Your task to perform on an android device: turn pop-ups on in chrome Image 0: 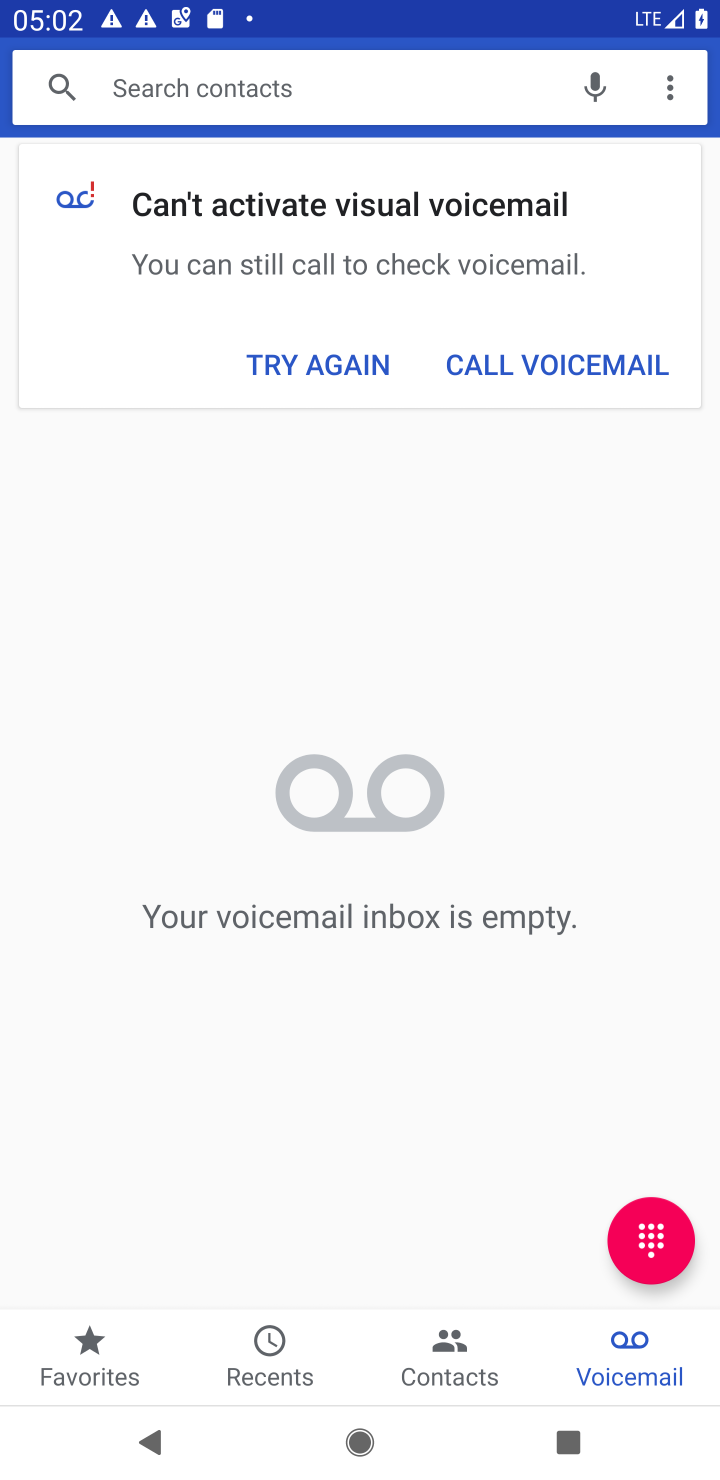
Step 0: press home button
Your task to perform on an android device: turn pop-ups on in chrome Image 1: 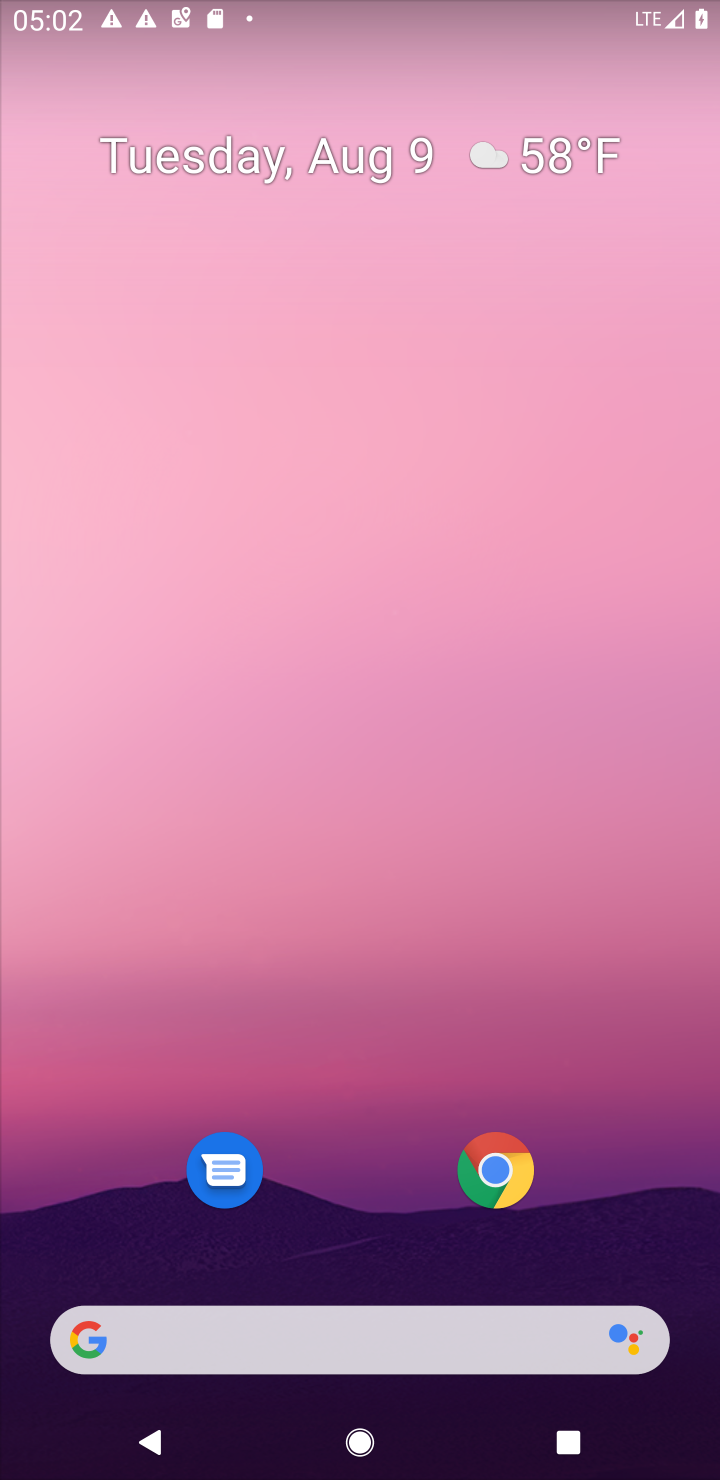
Step 1: click (503, 1153)
Your task to perform on an android device: turn pop-ups on in chrome Image 2: 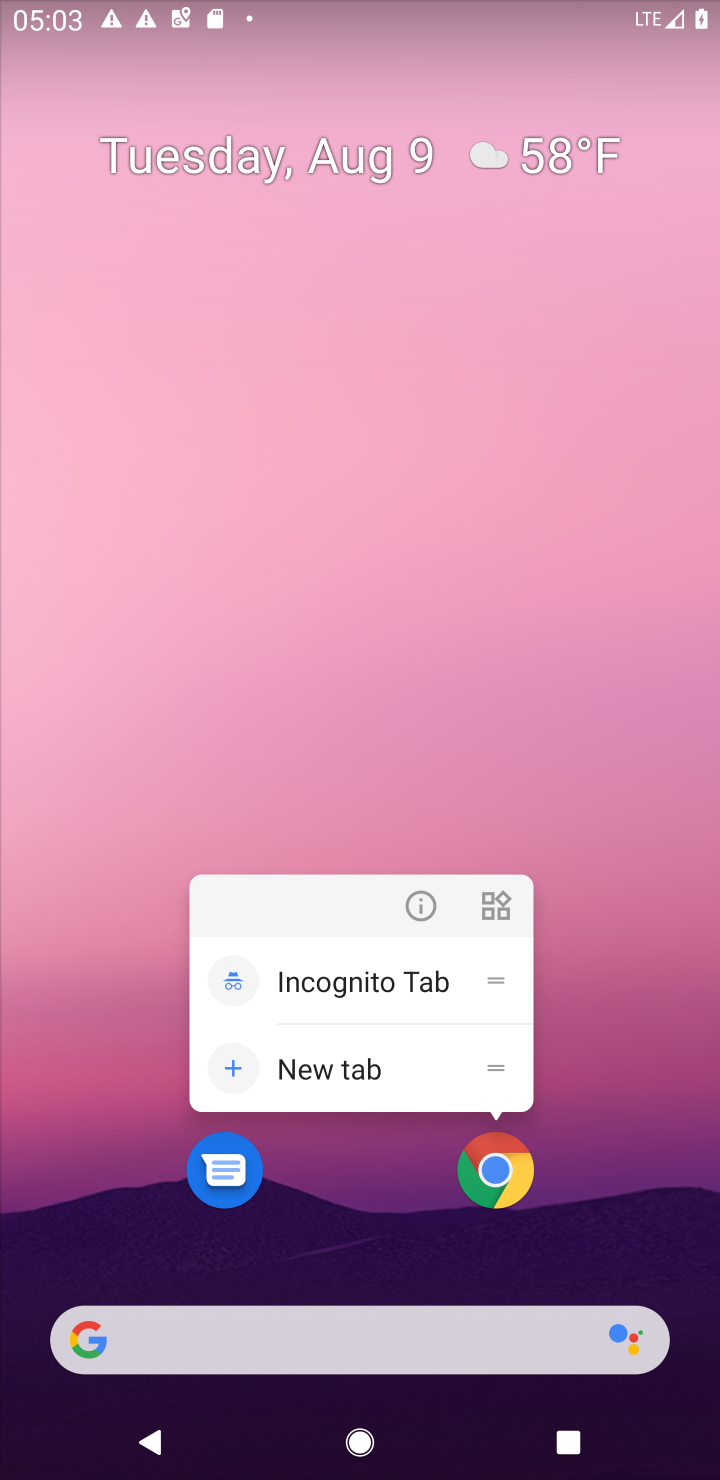
Step 2: click (506, 1157)
Your task to perform on an android device: turn pop-ups on in chrome Image 3: 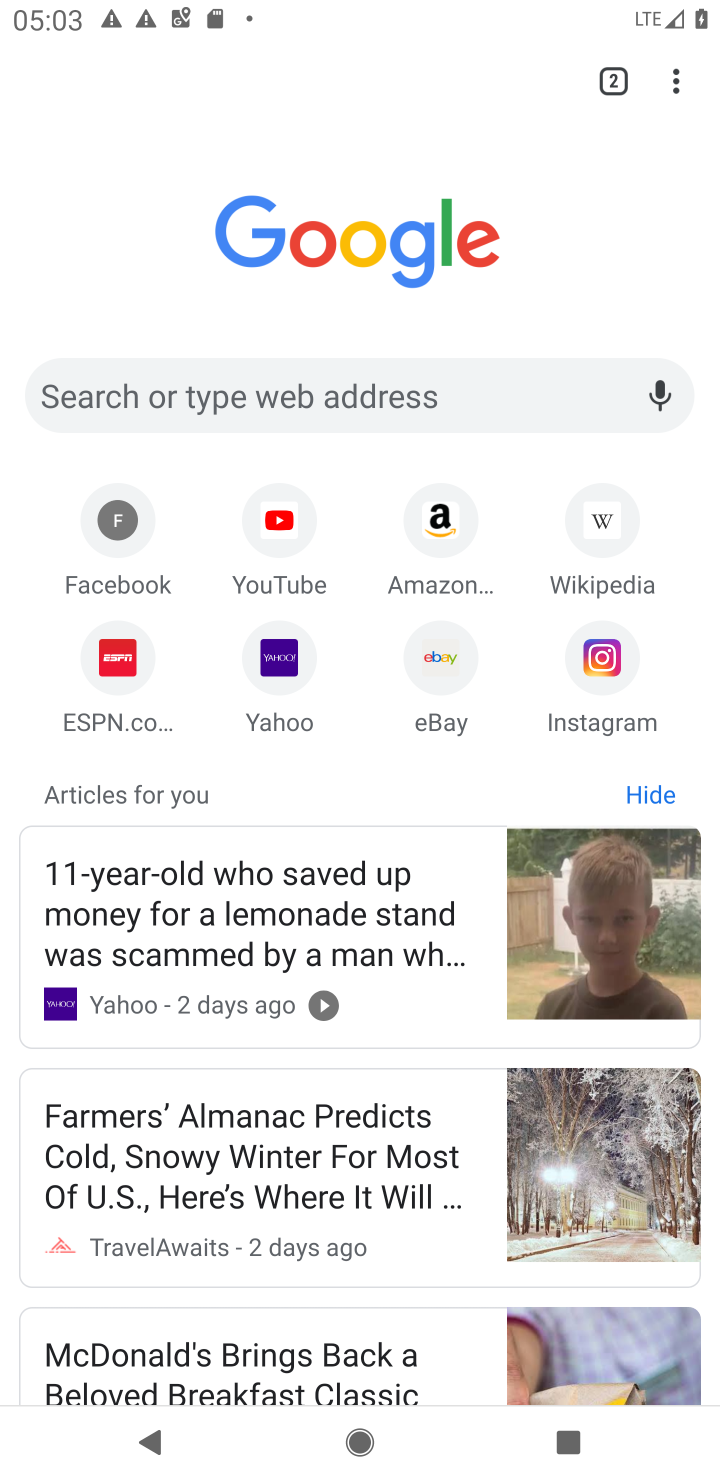
Step 3: click (672, 72)
Your task to perform on an android device: turn pop-ups on in chrome Image 4: 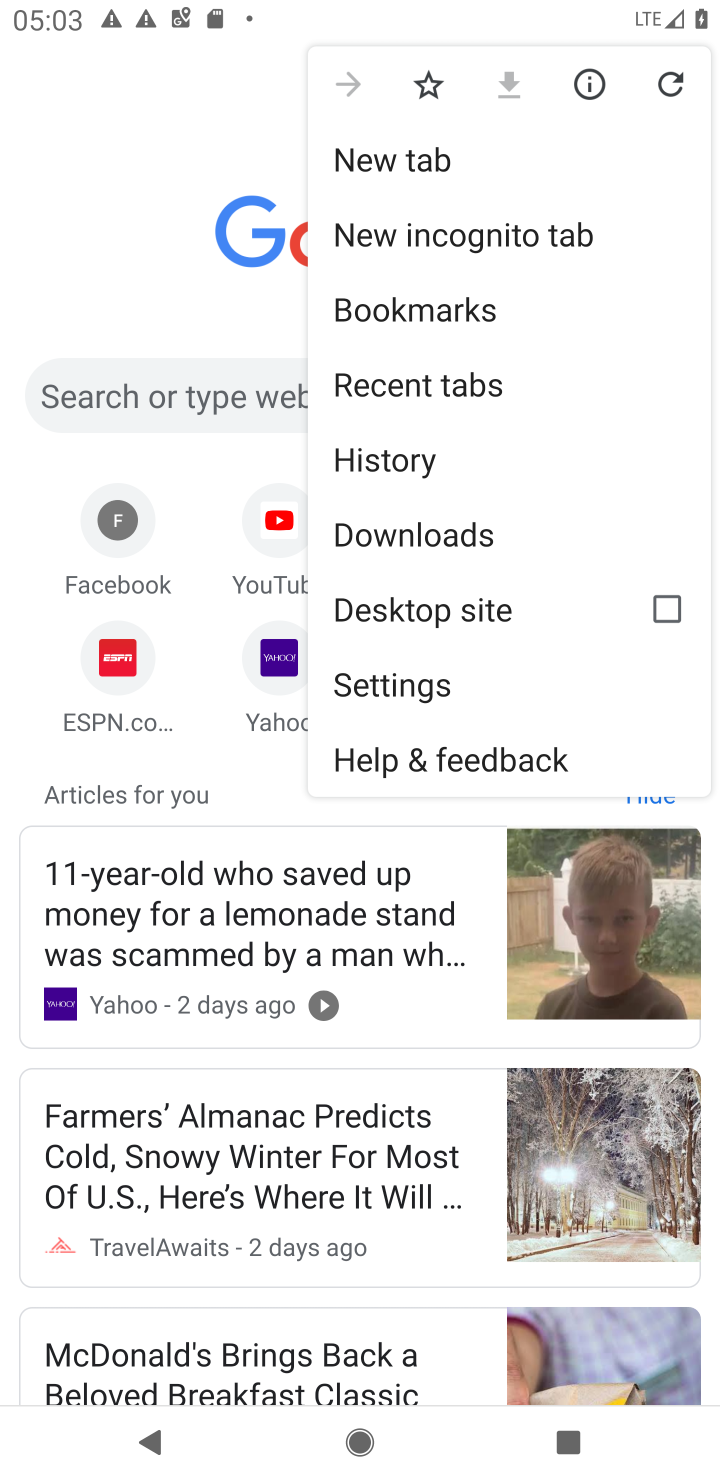
Step 4: click (427, 689)
Your task to perform on an android device: turn pop-ups on in chrome Image 5: 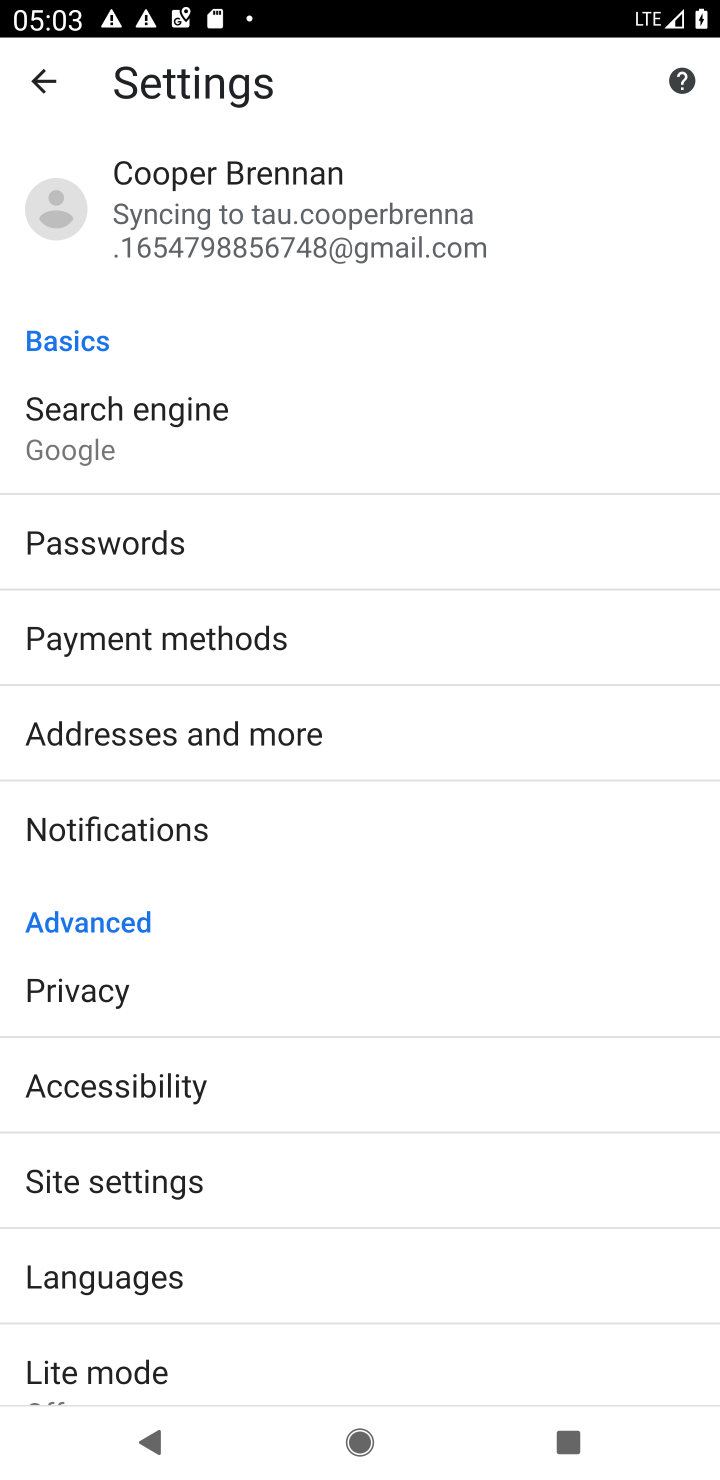
Step 5: click (85, 1181)
Your task to perform on an android device: turn pop-ups on in chrome Image 6: 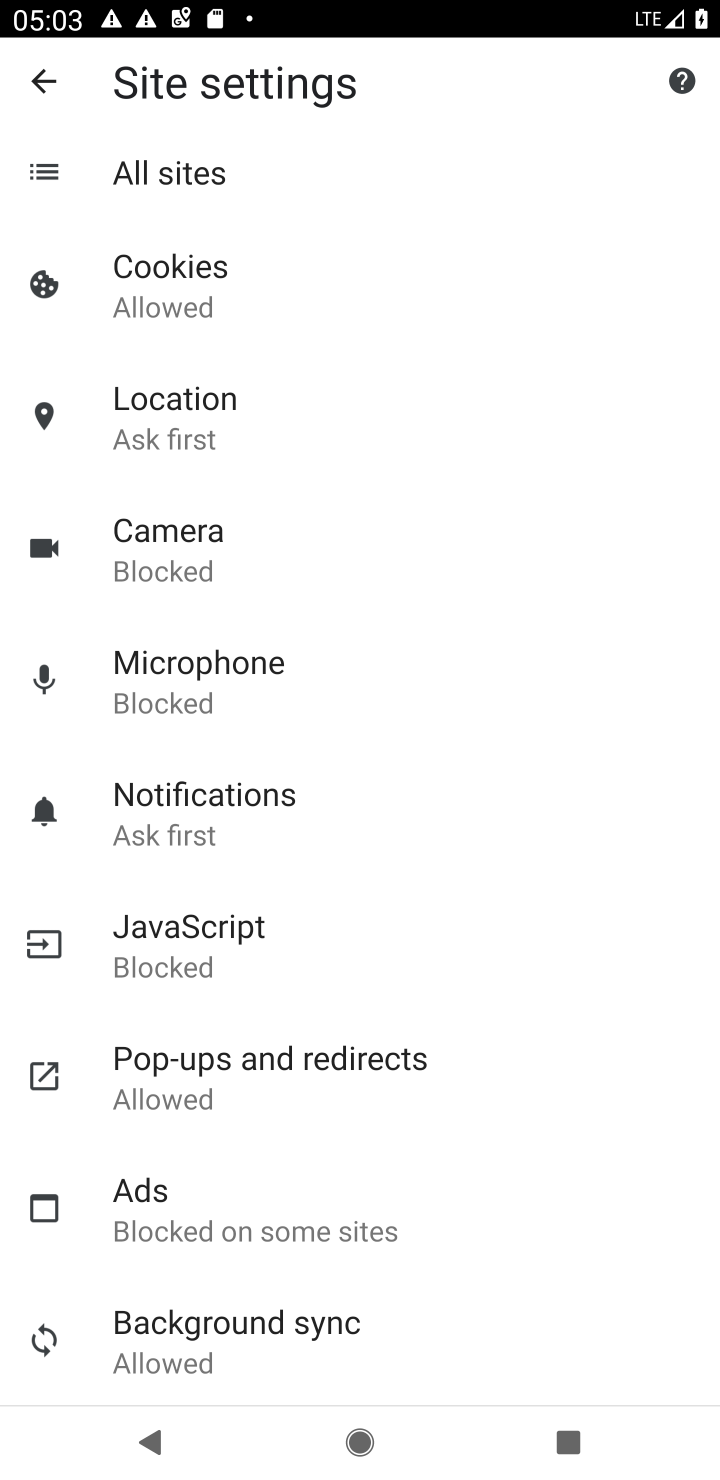
Step 6: click (256, 1090)
Your task to perform on an android device: turn pop-ups on in chrome Image 7: 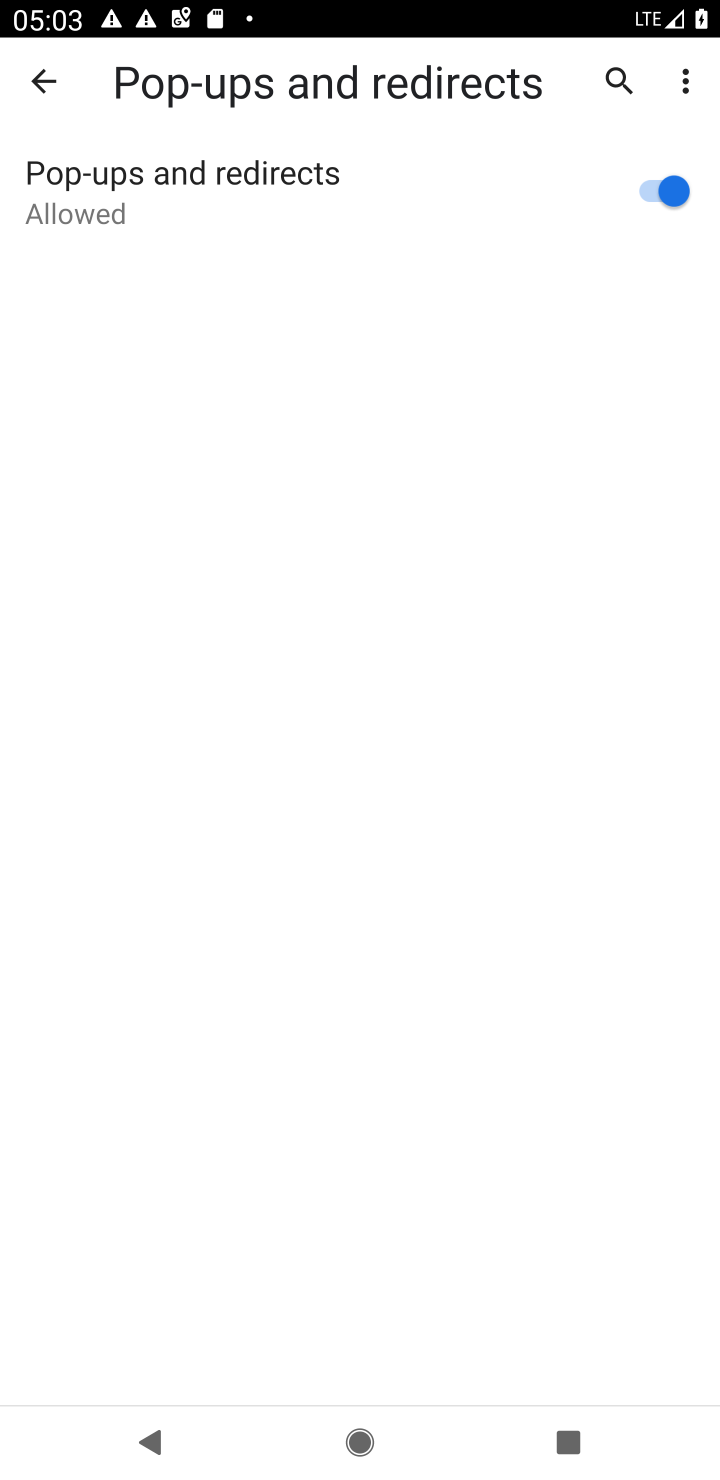
Step 7: task complete